Your task to perform on an android device: delete a single message in the gmail app Image 0: 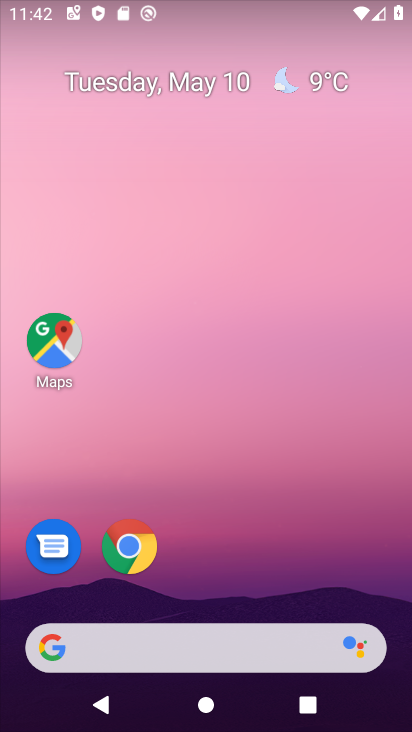
Step 0: drag from (180, 585) to (228, 277)
Your task to perform on an android device: delete a single message in the gmail app Image 1: 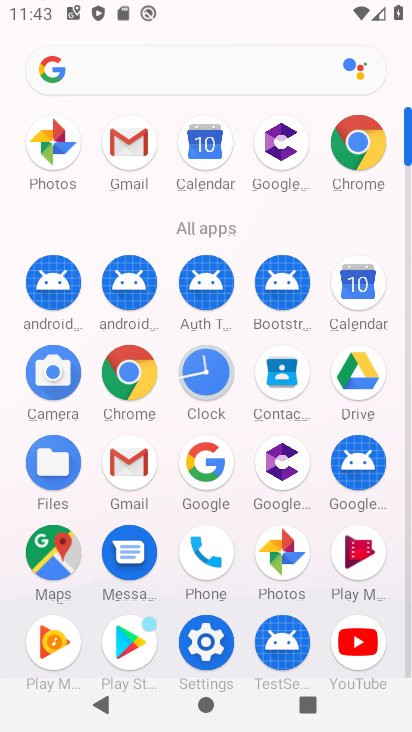
Step 1: click (123, 464)
Your task to perform on an android device: delete a single message in the gmail app Image 2: 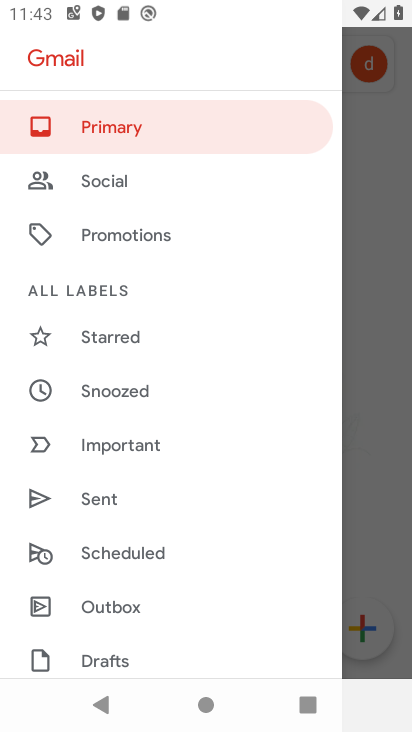
Step 2: drag from (181, 603) to (214, 313)
Your task to perform on an android device: delete a single message in the gmail app Image 3: 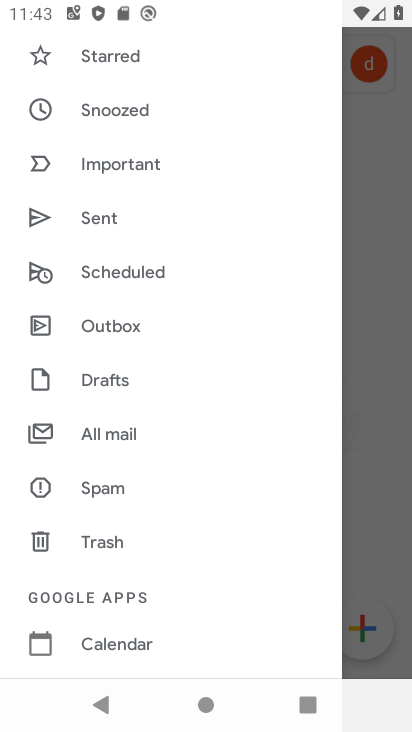
Step 3: drag from (228, 248) to (237, 715)
Your task to perform on an android device: delete a single message in the gmail app Image 4: 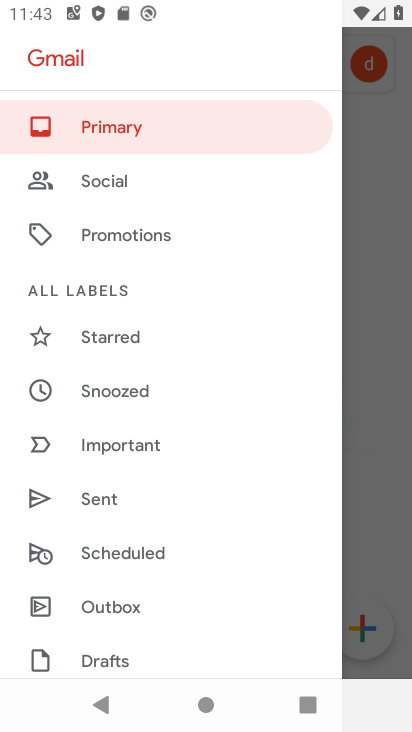
Step 4: click (128, 126)
Your task to perform on an android device: delete a single message in the gmail app Image 5: 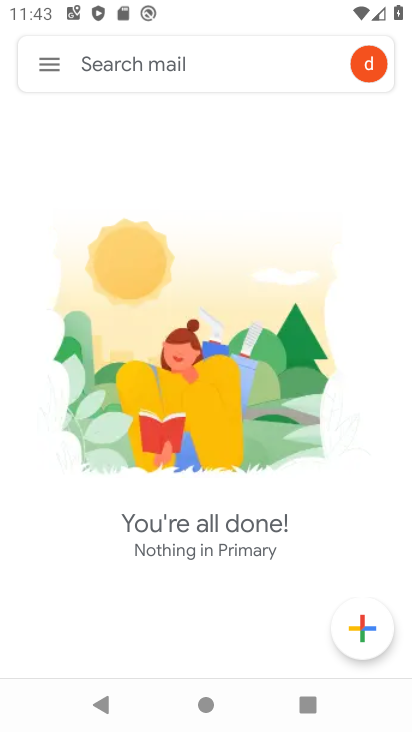
Step 5: drag from (200, 612) to (246, 398)
Your task to perform on an android device: delete a single message in the gmail app Image 6: 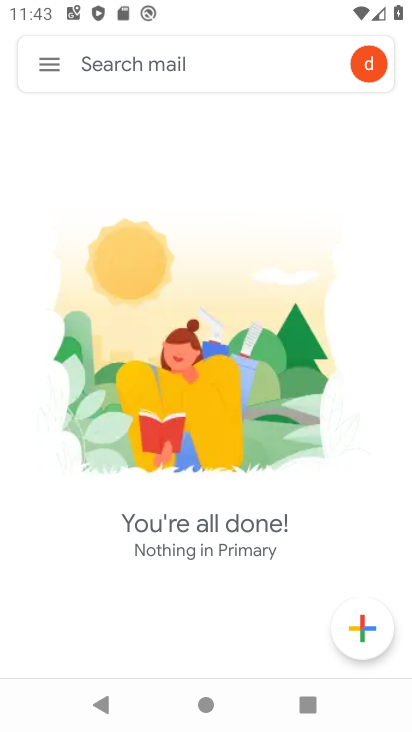
Step 6: drag from (206, 523) to (226, 397)
Your task to perform on an android device: delete a single message in the gmail app Image 7: 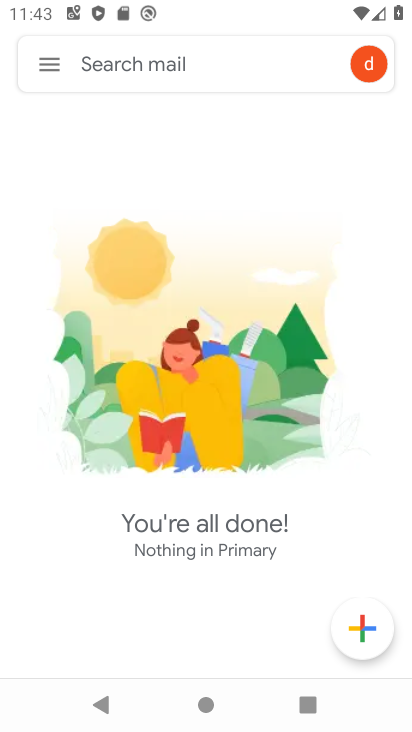
Step 7: drag from (156, 557) to (211, 383)
Your task to perform on an android device: delete a single message in the gmail app Image 8: 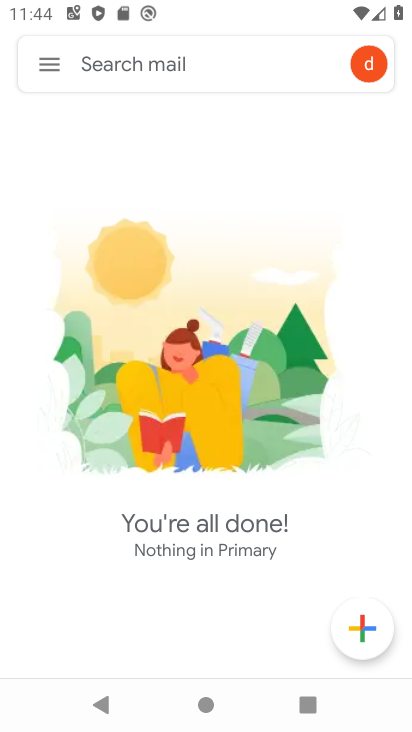
Step 8: click (244, 301)
Your task to perform on an android device: delete a single message in the gmail app Image 9: 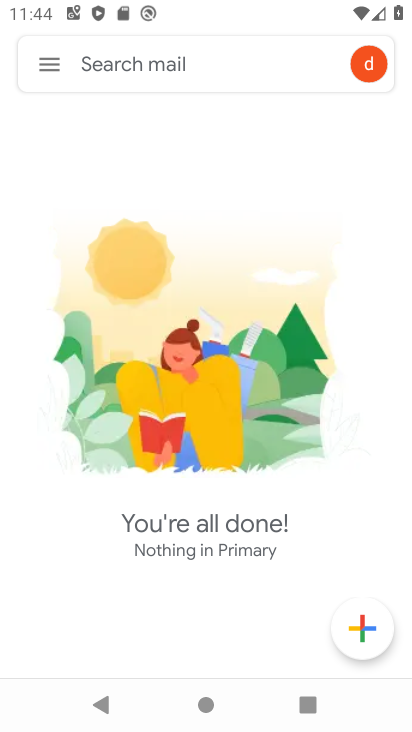
Step 9: task complete